Your task to perform on an android device: Add "corsair k70" to the cart on newegg, then select checkout. Image 0: 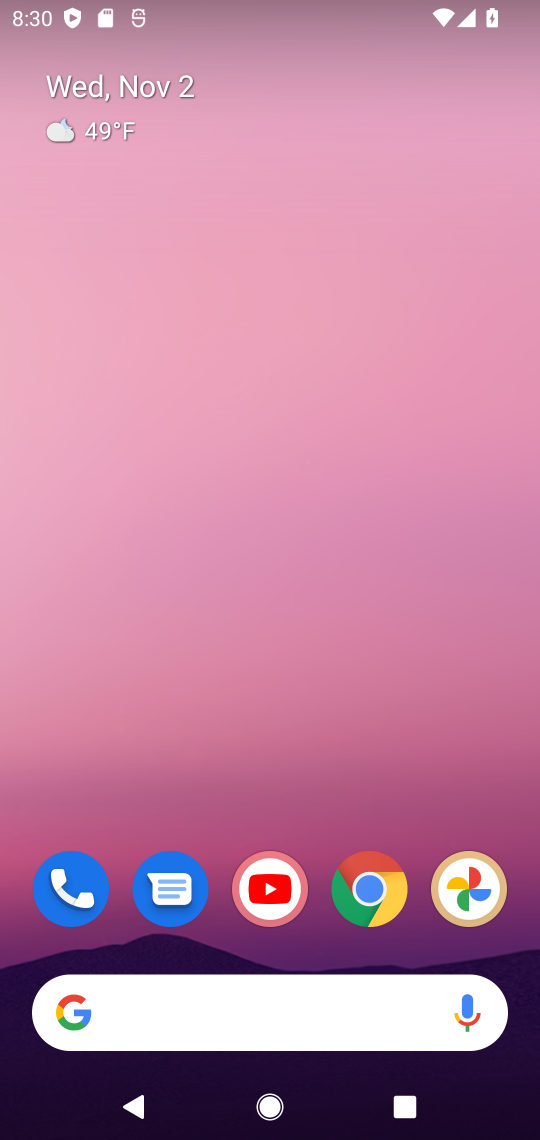
Step 0: press home button
Your task to perform on an android device: Add "corsair k70" to the cart on newegg, then select checkout. Image 1: 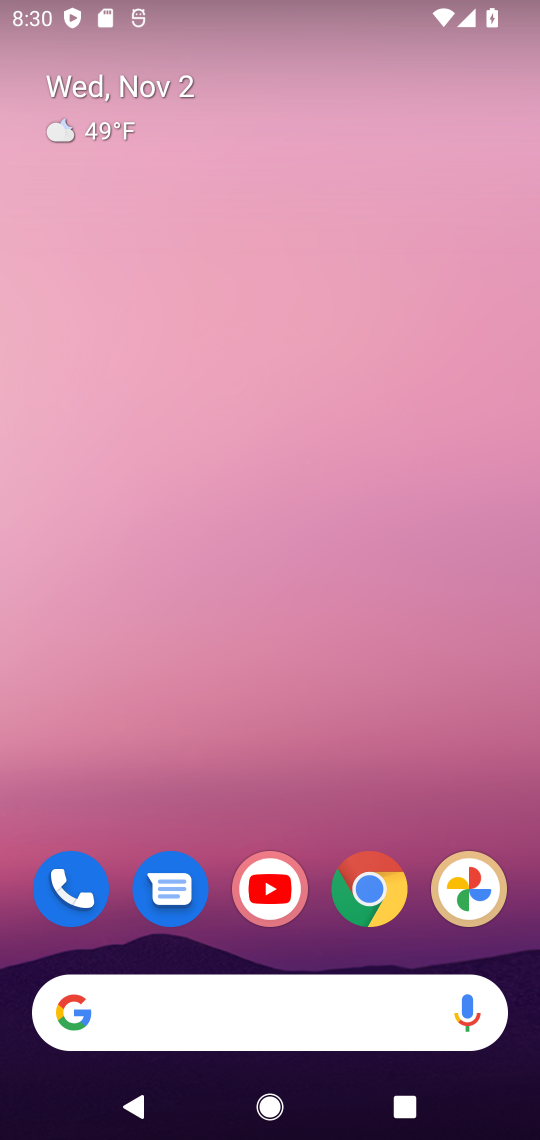
Step 1: drag from (322, 819) to (343, 33)
Your task to perform on an android device: Add "corsair k70" to the cart on newegg, then select checkout. Image 2: 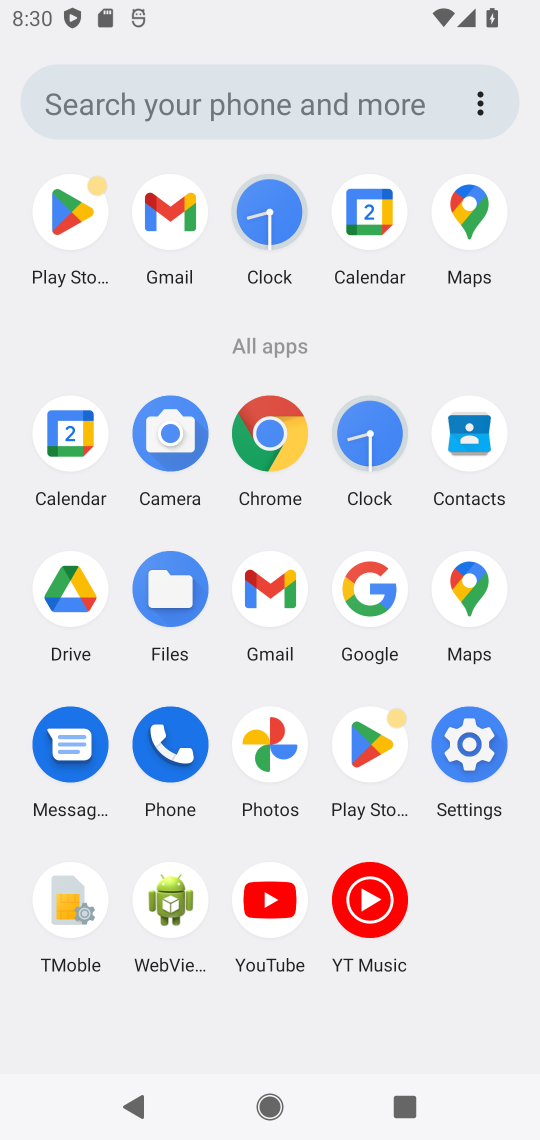
Step 2: click (260, 434)
Your task to perform on an android device: Add "corsair k70" to the cart on newegg, then select checkout. Image 3: 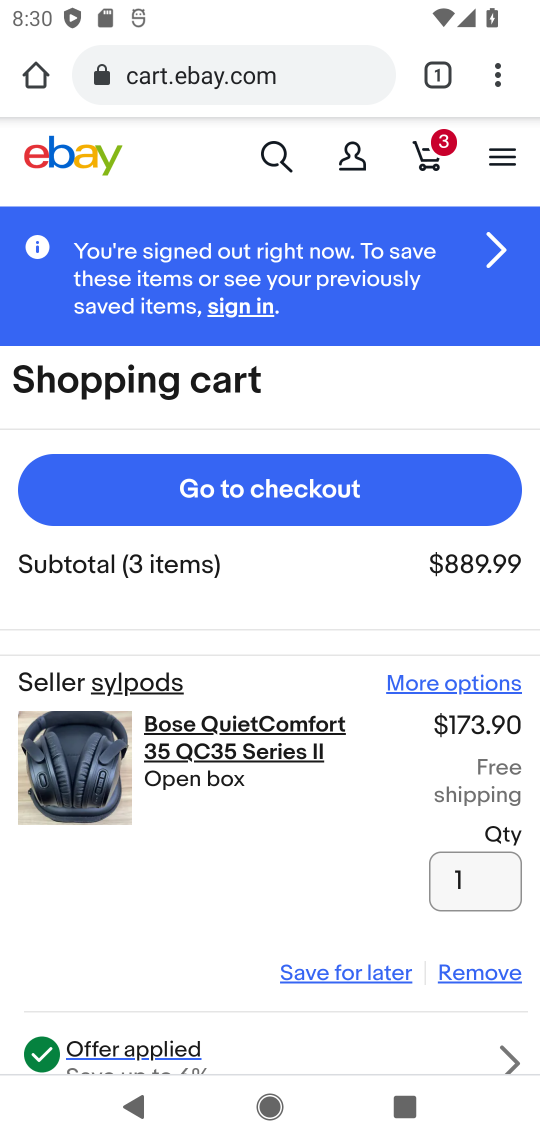
Step 3: click (196, 61)
Your task to perform on an android device: Add "corsair k70" to the cart on newegg, then select checkout. Image 4: 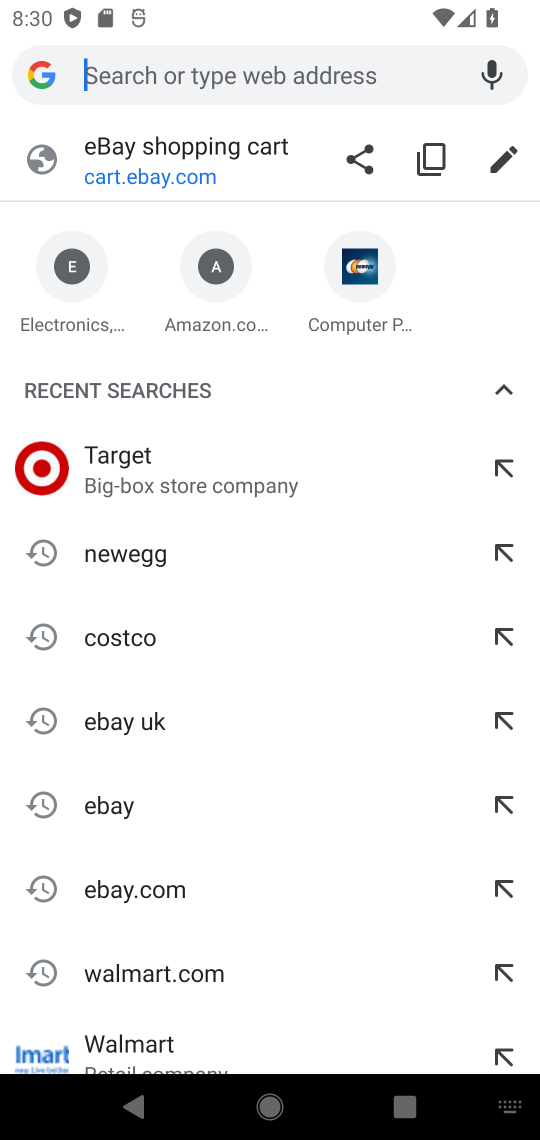
Step 4: click (146, 63)
Your task to perform on an android device: Add "corsair k70" to the cart on newegg, then select checkout. Image 5: 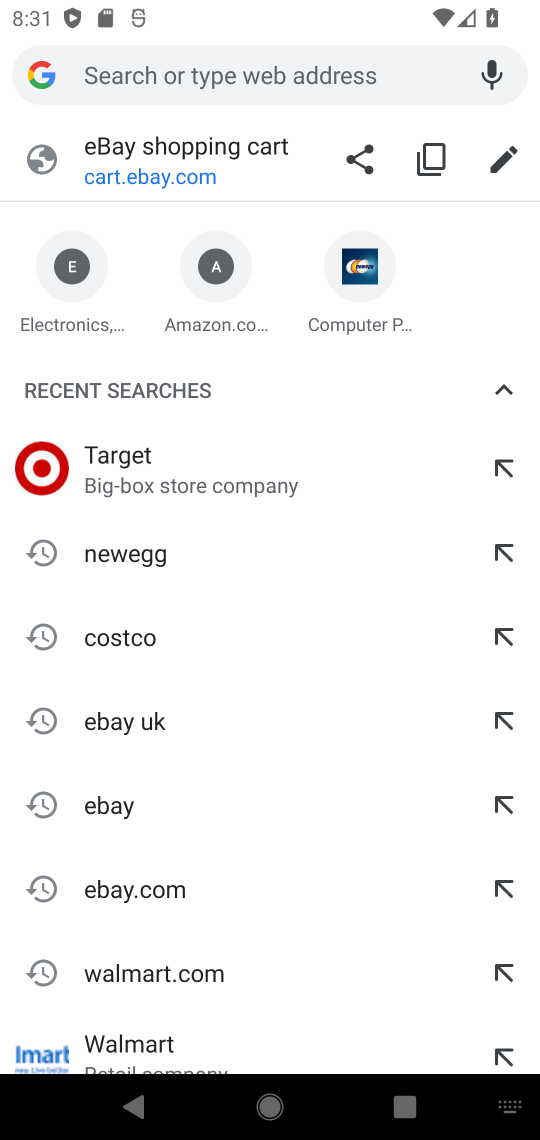
Step 5: type "newegg"
Your task to perform on an android device: Add "corsair k70" to the cart on newegg, then select checkout. Image 6: 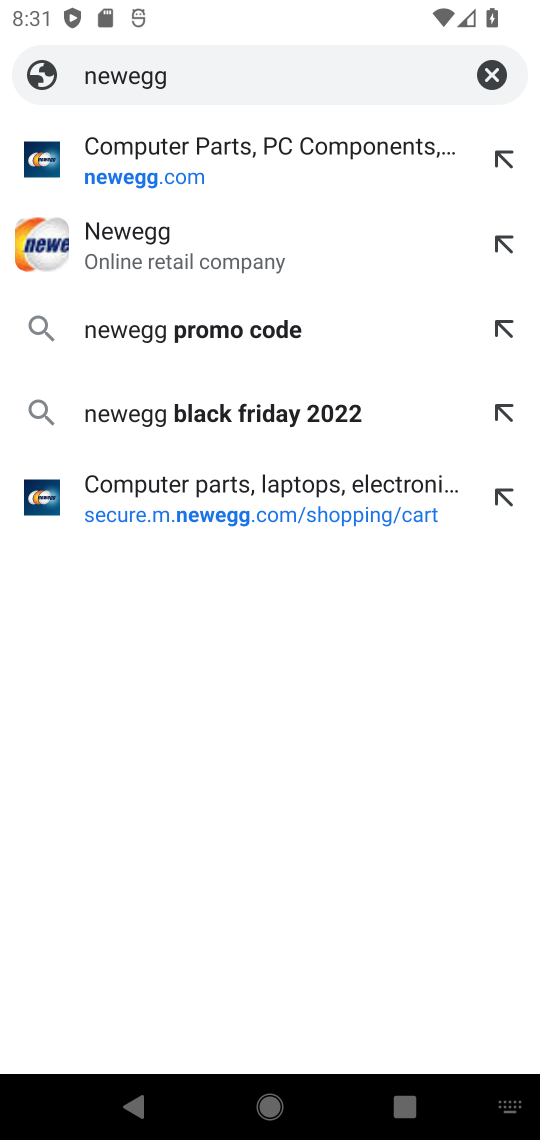
Step 6: click (177, 245)
Your task to perform on an android device: Add "corsair k70" to the cart on newegg, then select checkout. Image 7: 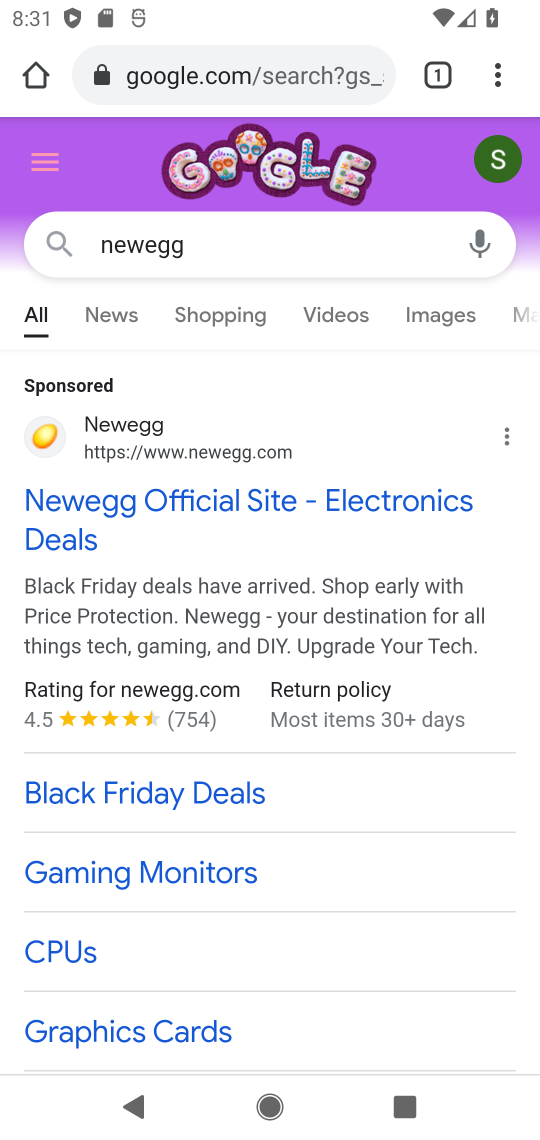
Step 7: click (147, 520)
Your task to perform on an android device: Add "corsair k70" to the cart on newegg, then select checkout. Image 8: 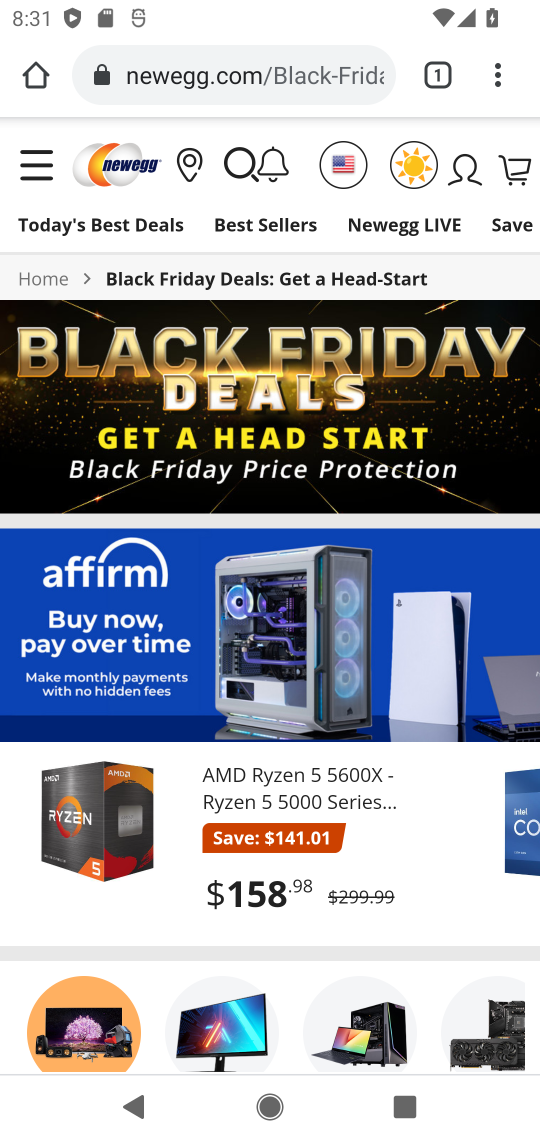
Step 8: click (239, 161)
Your task to perform on an android device: Add "corsair k70" to the cart on newegg, then select checkout. Image 9: 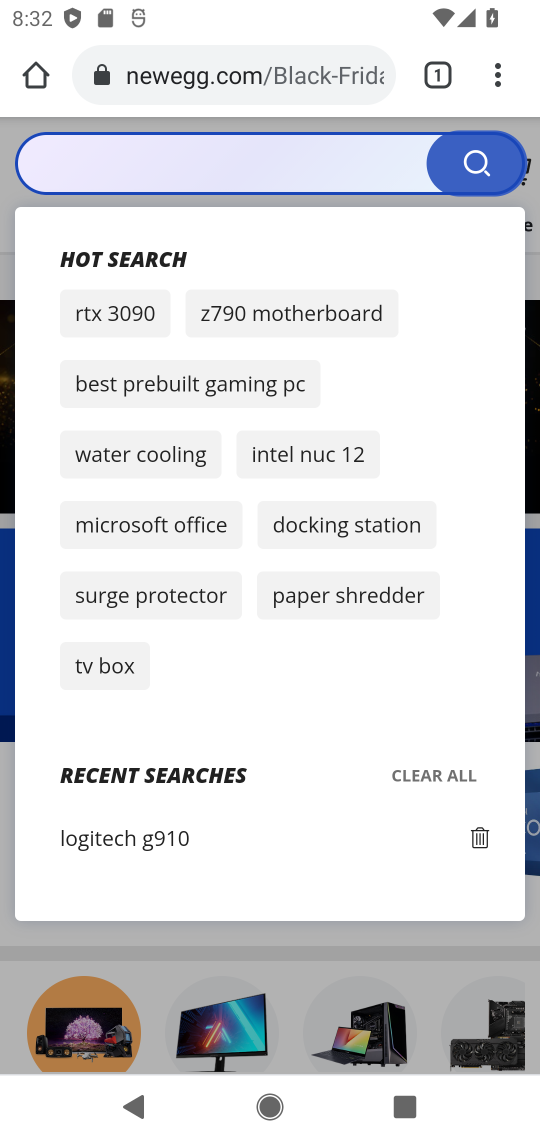
Step 9: click (140, 160)
Your task to perform on an android device: Add "corsair k70" to the cart on newegg, then select checkout. Image 10: 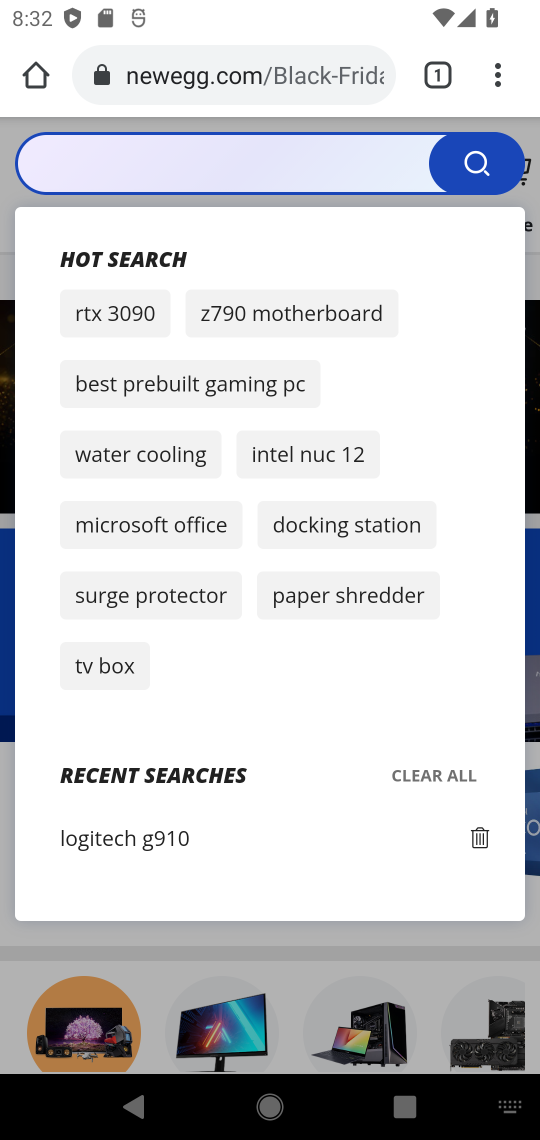
Step 10: type "corsair k70"
Your task to perform on an android device: Add "corsair k70" to the cart on newegg, then select checkout. Image 11: 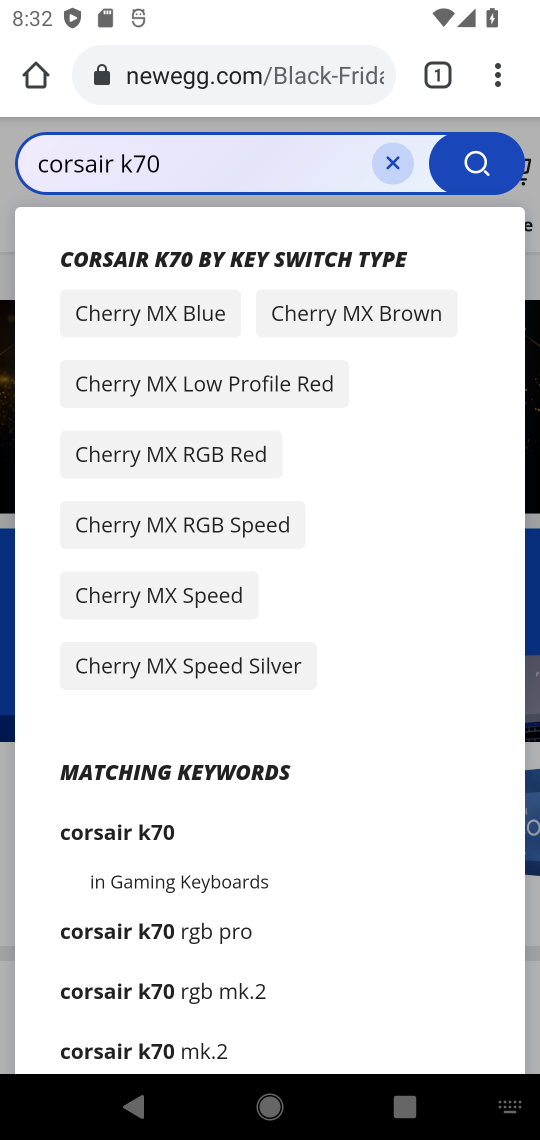
Step 11: click (488, 156)
Your task to perform on an android device: Add "corsair k70" to the cart on newegg, then select checkout. Image 12: 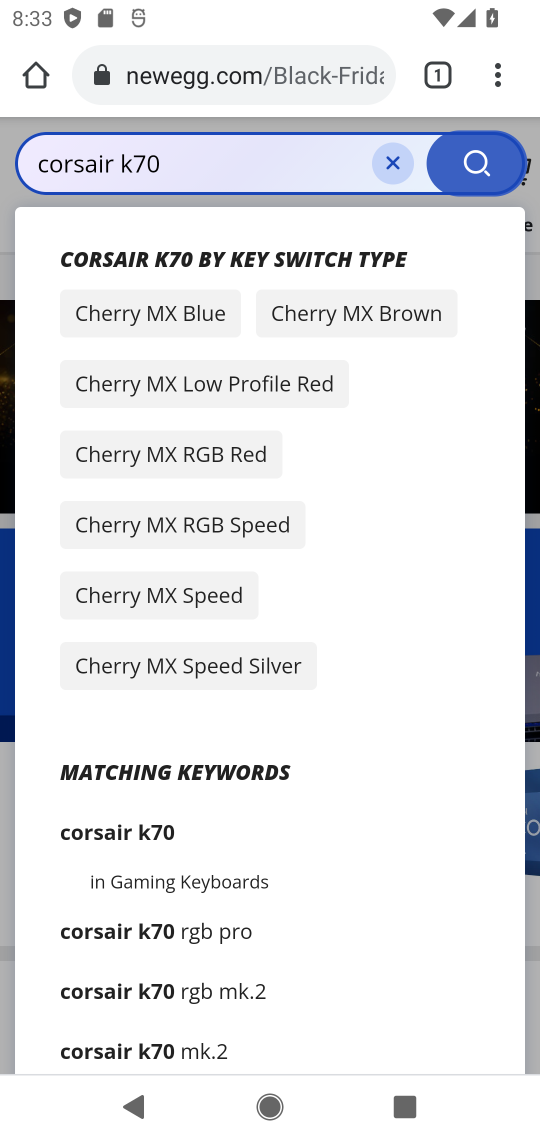
Step 12: click (124, 859)
Your task to perform on an android device: Add "corsair k70" to the cart on newegg, then select checkout. Image 13: 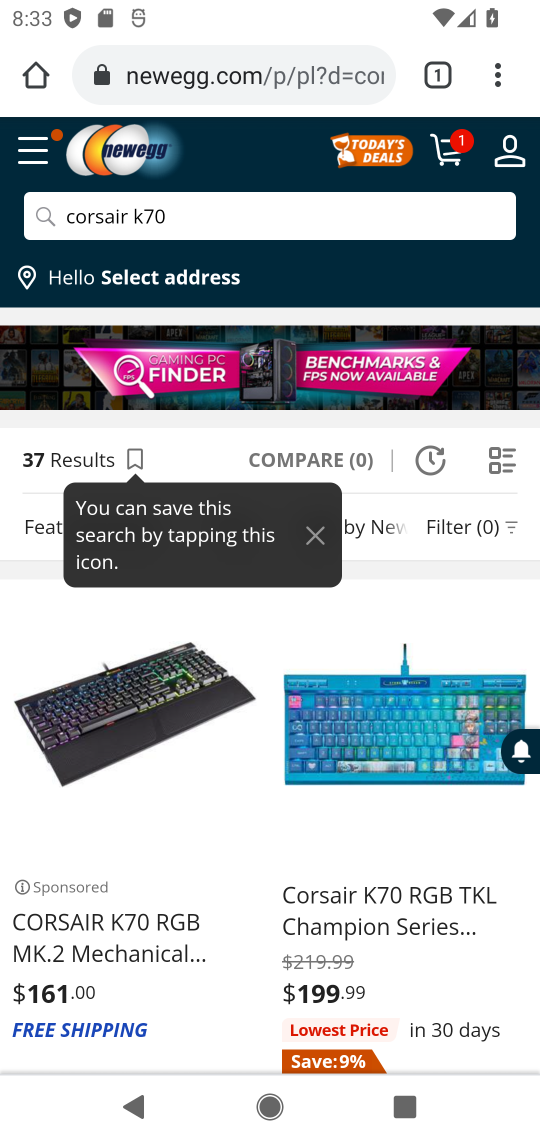
Step 13: click (130, 753)
Your task to perform on an android device: Add "corsair k70" to the cart on newegg, then select checkout. Image 14: 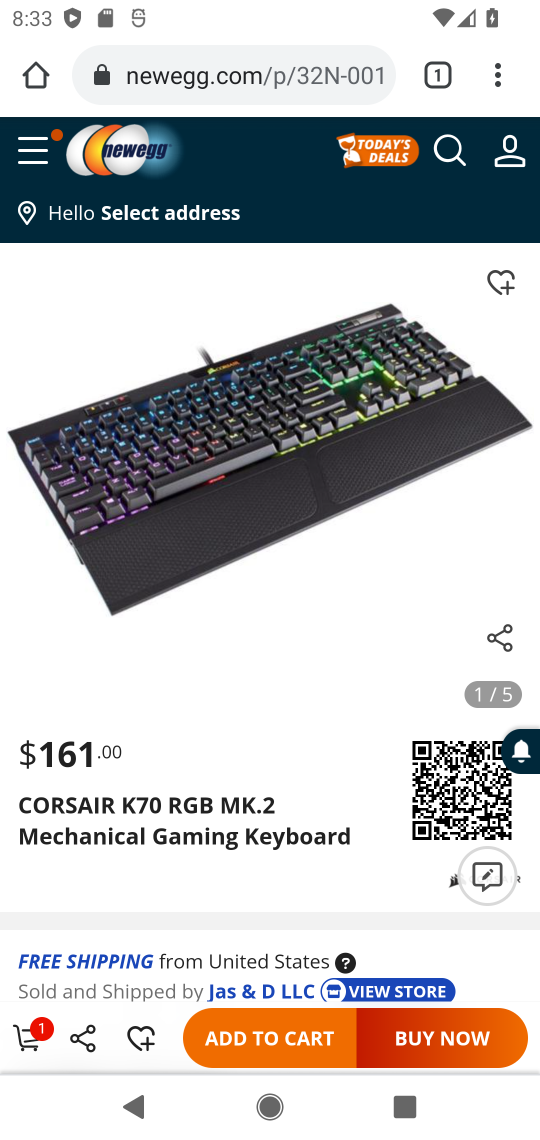
Step 14: click (266, 1040)
Your task to perform on an android device: Add "corsair k70" to the cart on newegg, then select checkout. Image 15: 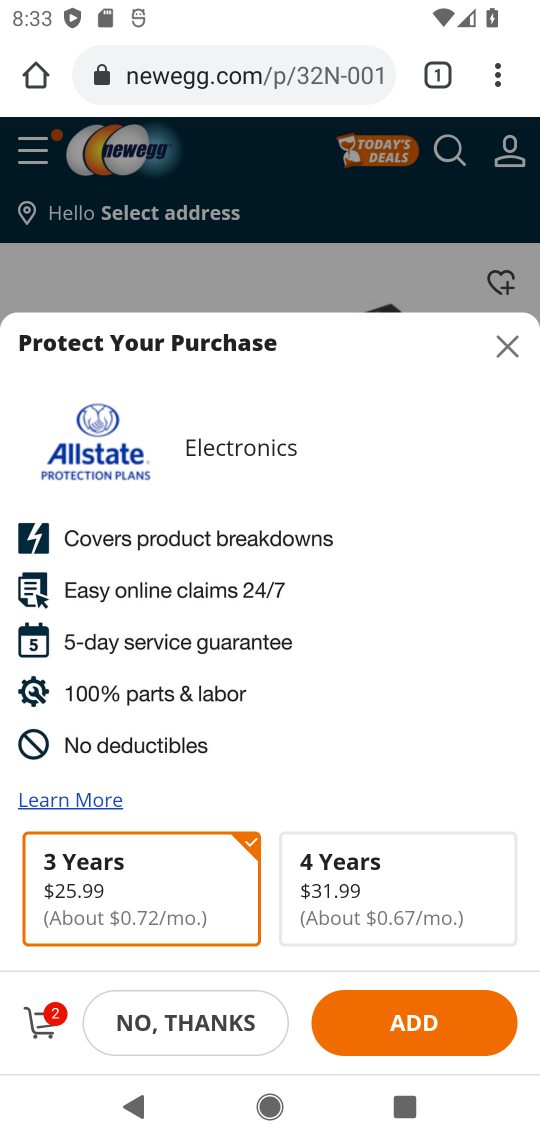
Step 15: click (46, 1028)
Your task to perform on an android device: Add "corsair k70" to the cart on newegg, then select checkout. Image 16: 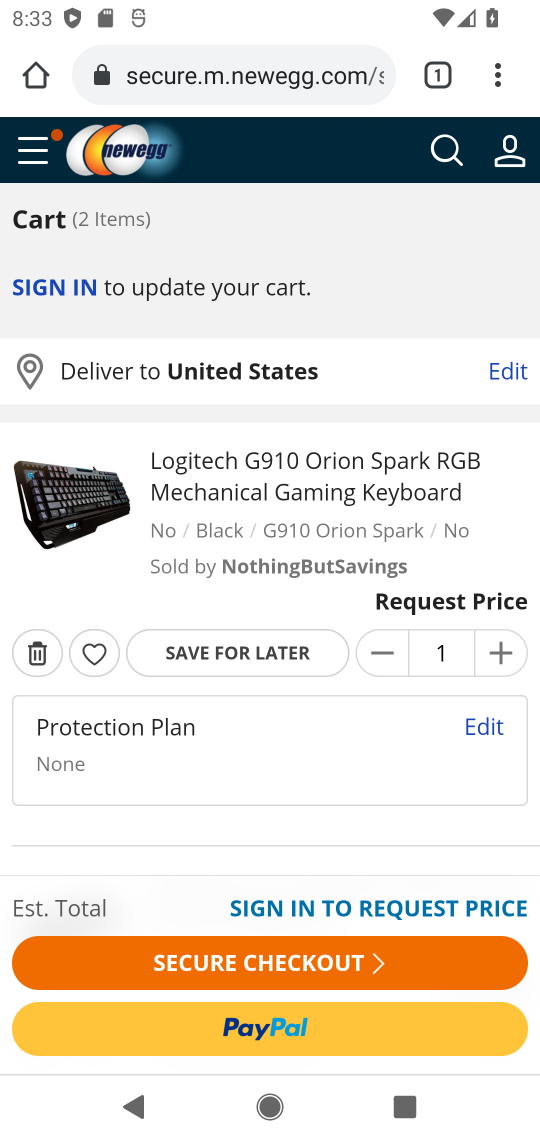
Step 16: task complete